Your task to perform on an android device: toggle wifi Image 0: 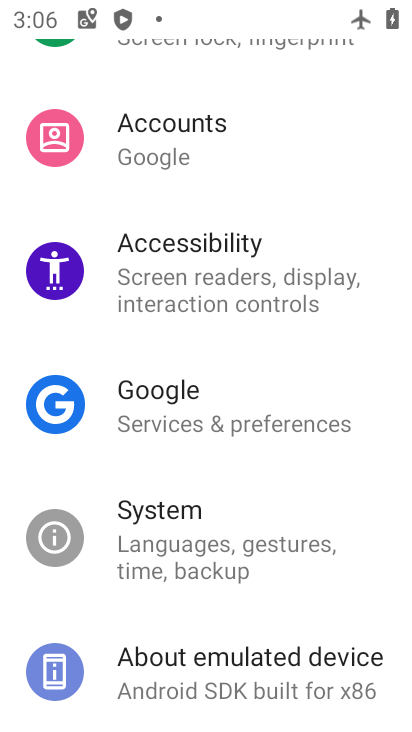
Step 0: press home button
Your task to perform on an android device: toggle wifi Image 1: 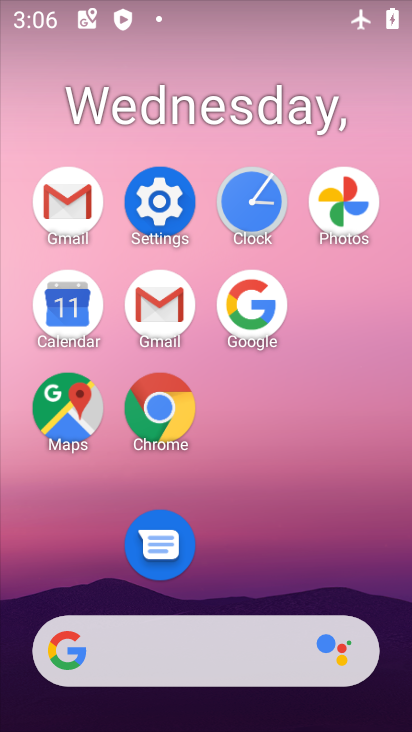
Step 1: click (168, 197)
Your task to perform on an android device: toggle wifi Image 2: 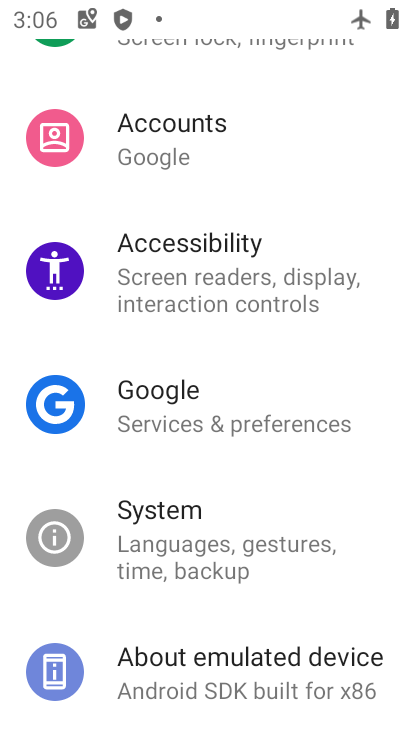
Step 2: drag from (316, 121) to (323, 647)
Your task to perform on an android device: toggle wifi Image 3: 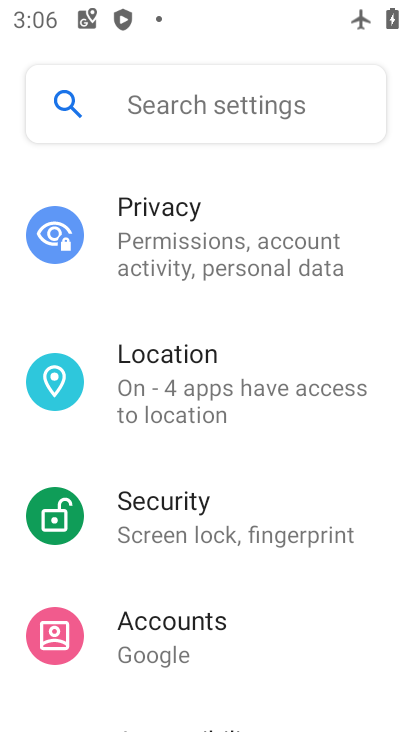
Step 3: drag from (340, 158) to (274, 605)
Your task to perform on an android device: toggle wifi Image 4: 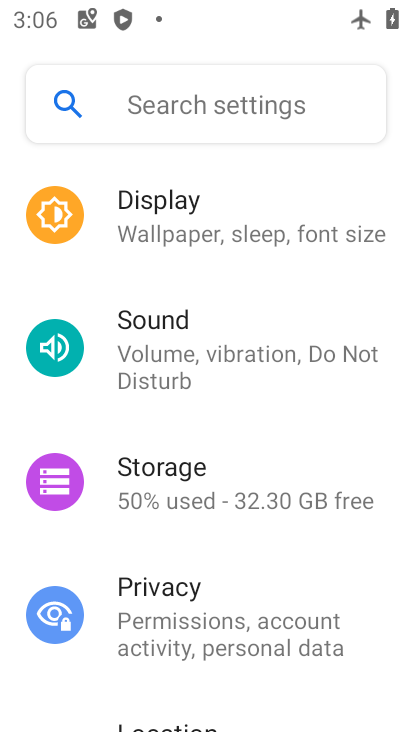
Step 4: click (313, 127)
Your task to perform on an android device: toggle wifi Image 5: 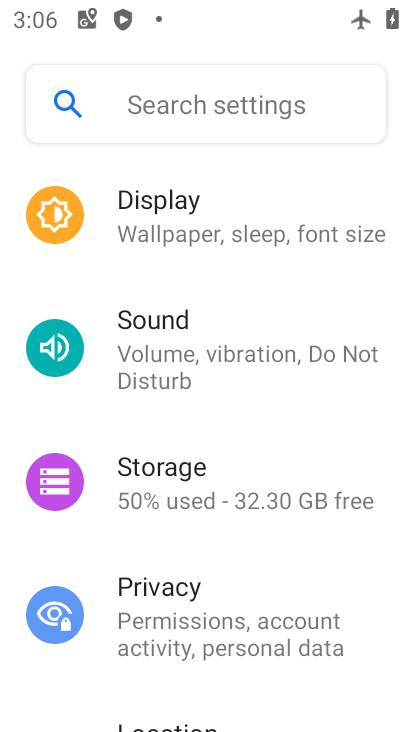
Step 5: drag from (306, 158) to (316, 469)
Your task to perform on an android device: toggle wifi Image 6: 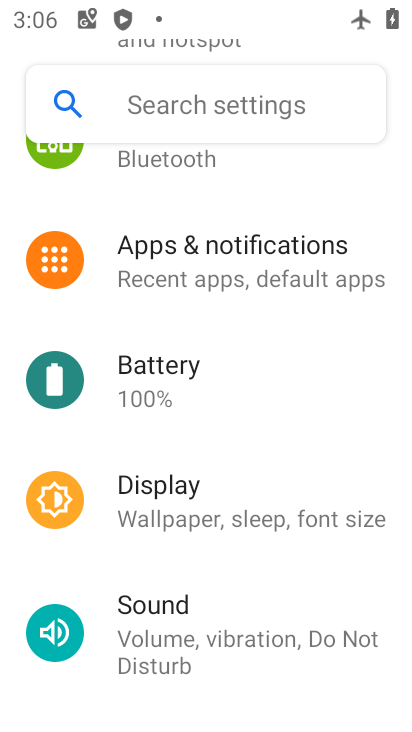
Step 6: drag from (312, 161) to (293, 637)
Your task to perform on an android device: toggle wifi Image 7: 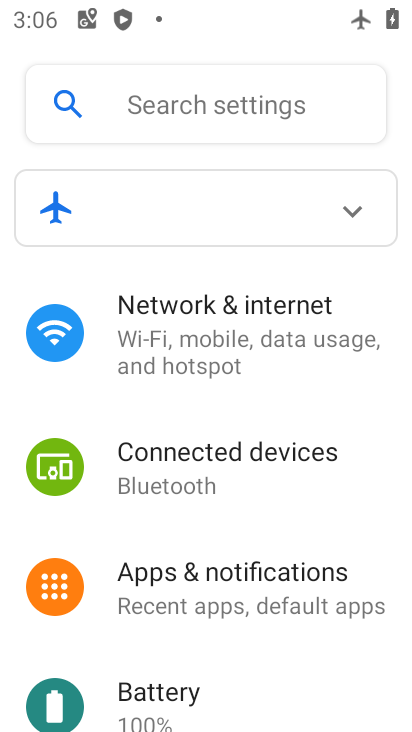
Step 7: click (288, 280)
Your task to perform on an android device: toggle wifi Image 8: 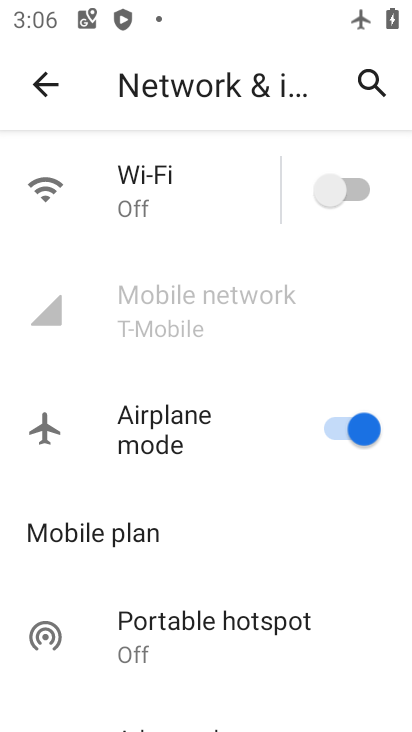
Step 8: click (360, 197)
Your task to perform on an android device: toggle wifi Image 9: 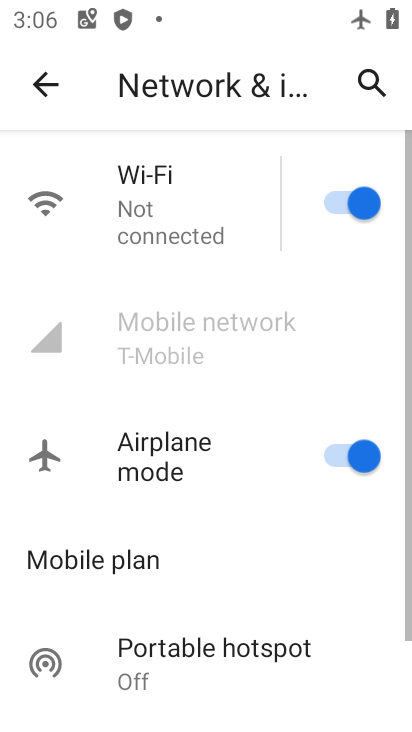
Step 9: task complete